Your task to perform on an android device: toggle location history Image 0: 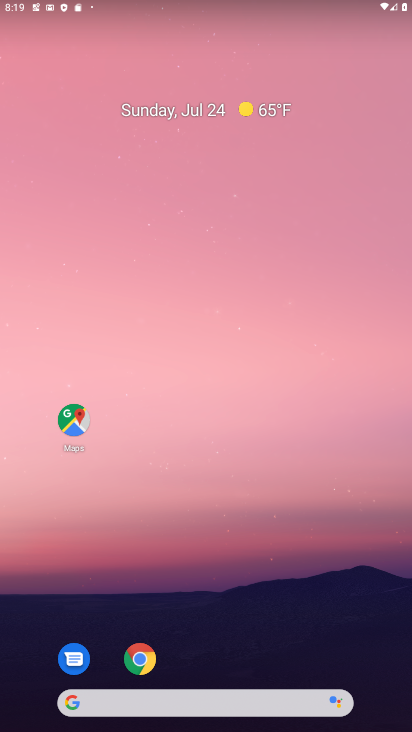
Step 0: drag from (302, 677) to (273, 630)
Your task to perform on an android device: toggle location history Image 1: 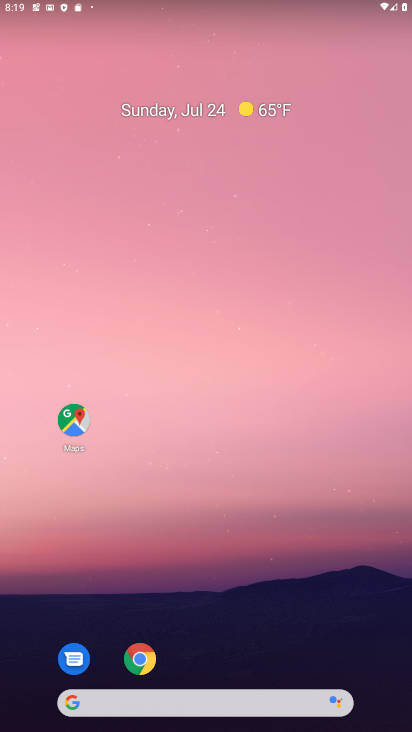
Step 1: click (70, 426)
Your task to perform on an android device: toggle location history Image 2: 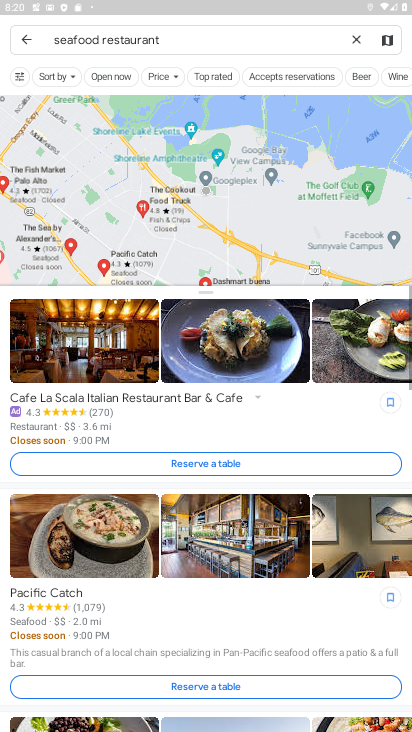
Step 2: click (354, 42)
Your task to perform on an android device: toggle location history Image 3: 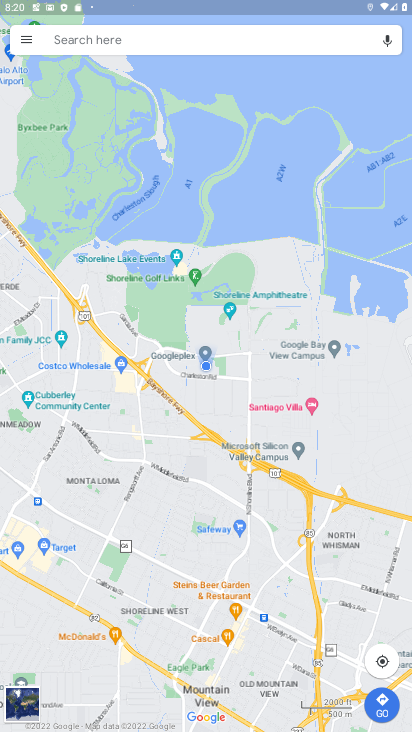
Step 3: click (28, 44)
Your task to perform on an android device: toggle location history Image 4: 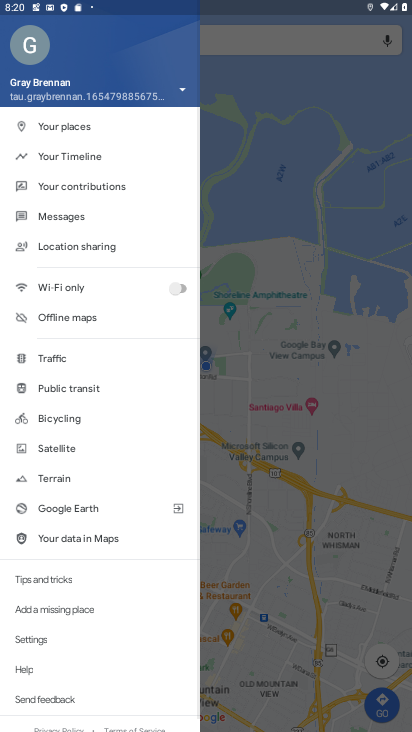
Step 4: click (58, 154)
Your task to perform on an android device: toggle location history Image 5: 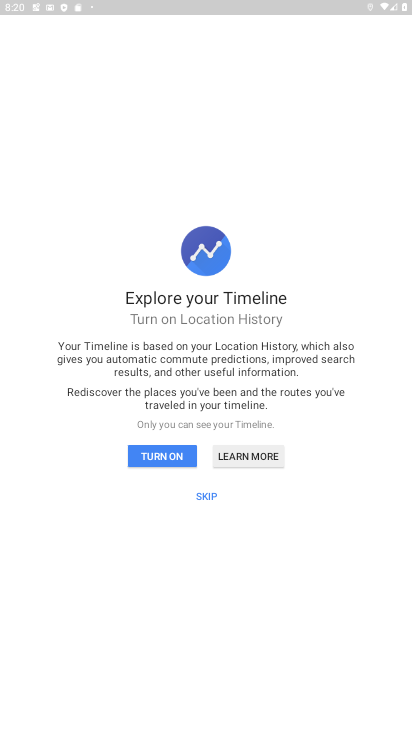
Step 5: click (189, 496)
Your task to perform on an android device: toggle location history Image 6: 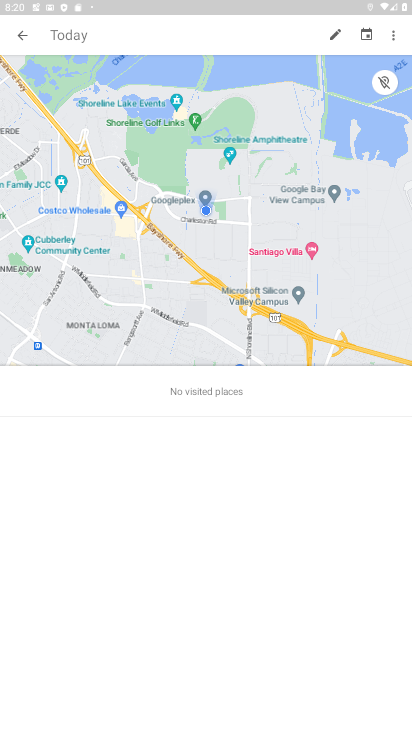
Step 6: click (394, 36)
Your task to perform on an android device: toggle location history Image 7: 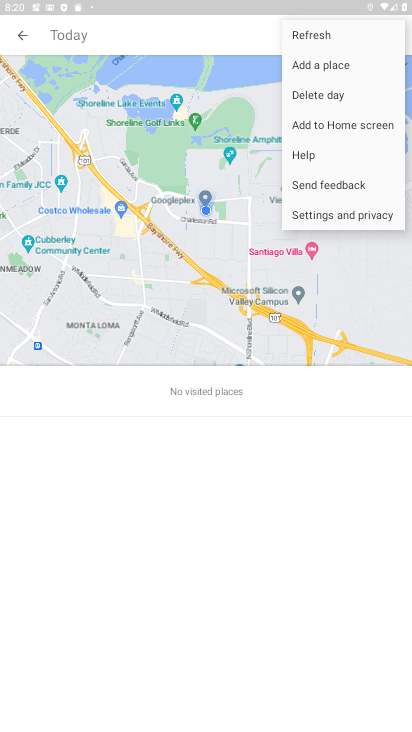
Step 7: click (307, 219)
Your task to perform on an android device: toggle location history Image 8: 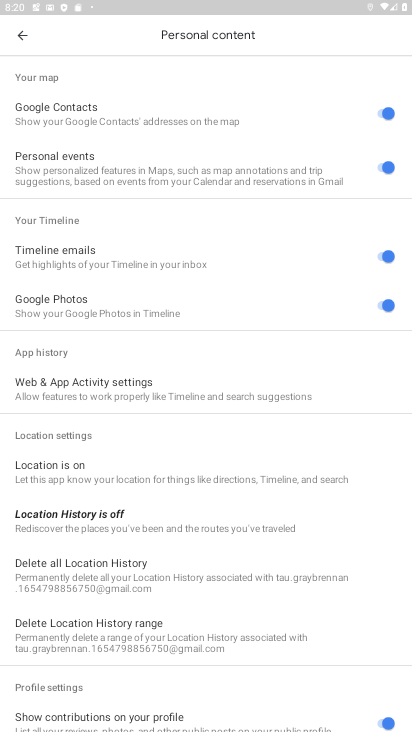
Step 8: click (69, 526)
Your task to perform on an android device: toggle location history Image 9: 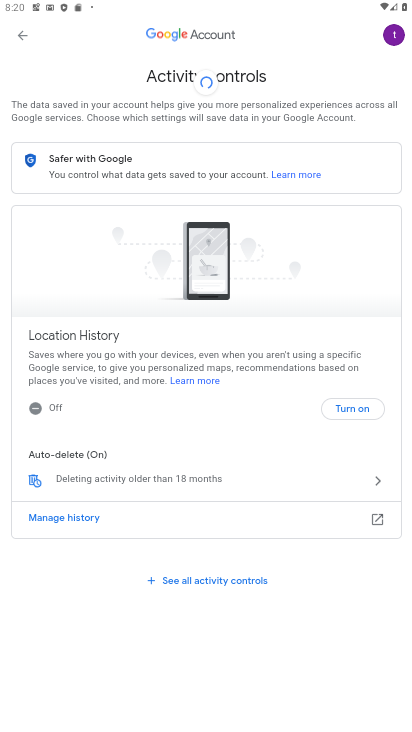
Step 9: click (355, 410)
Your task to perform on an android device: toggle location history Image 10: 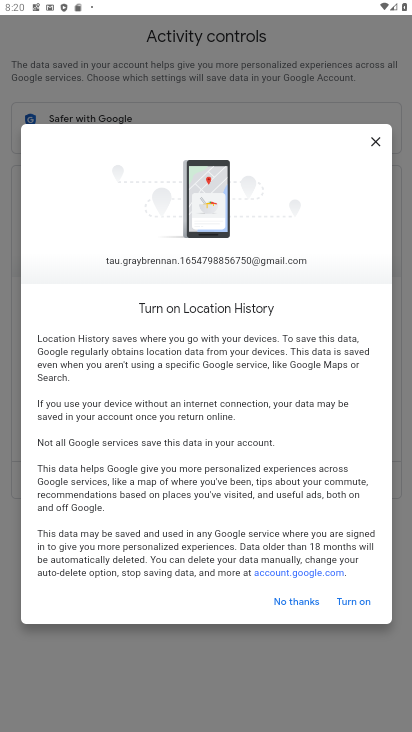
Step 10: click (344, 604)
Your task to perform on an android device: toggle location history Image 11: 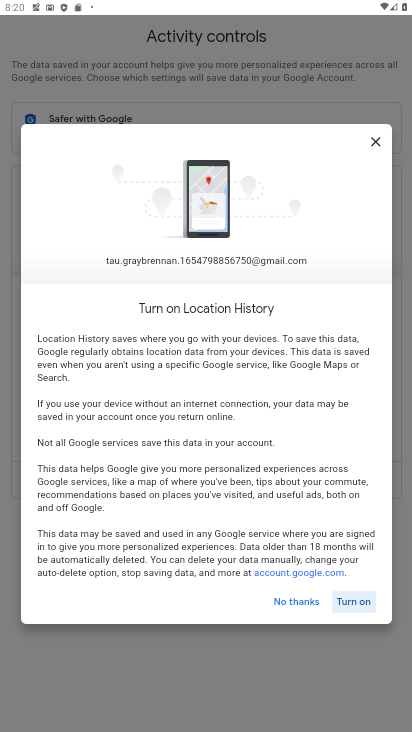
Step 11: drag from (266, 563) to (256, 238)
Your task to perform on an android device: toggle location history Image 12: 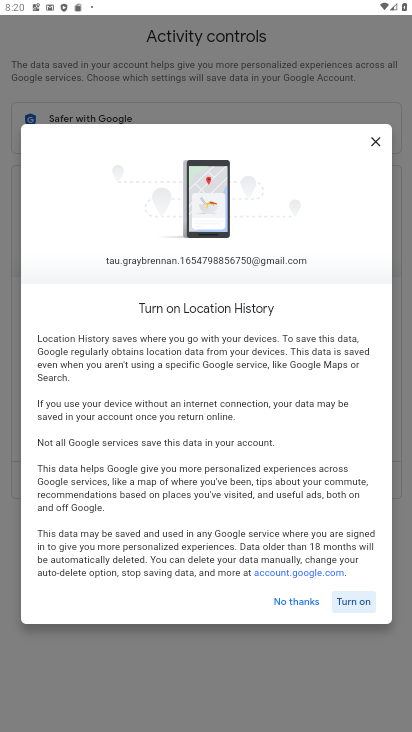
Step 12: click (344, 600)
Your task to perform on an android device: toggle location history Image 13: 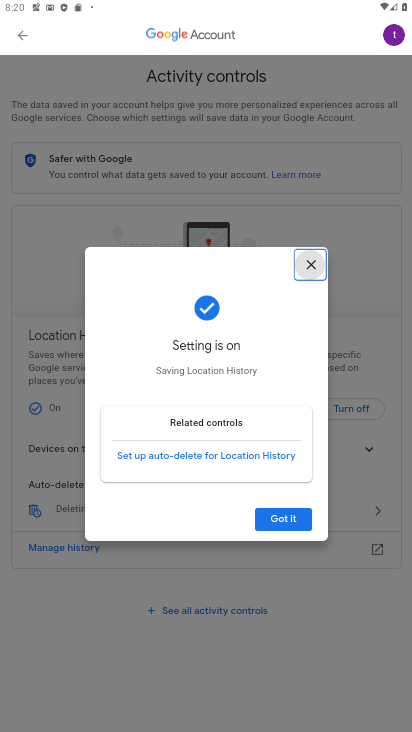
Step 13: click (288, 525)
Your task to perform on an android device: toggle location history Image 14: 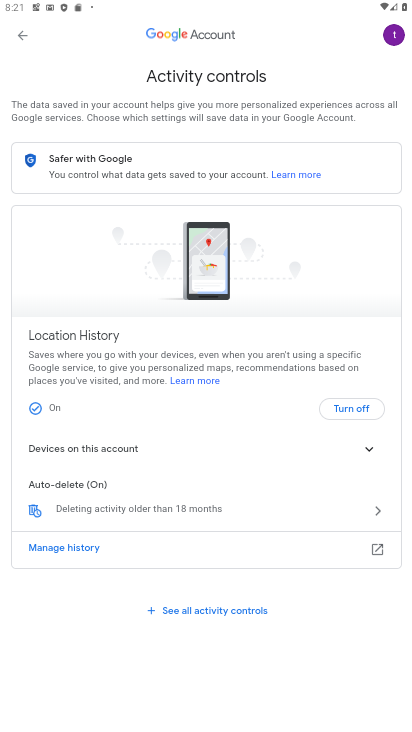
Step 14: task complete